Your task to perform on an android device: check the backup settings in the google photos Image 0: 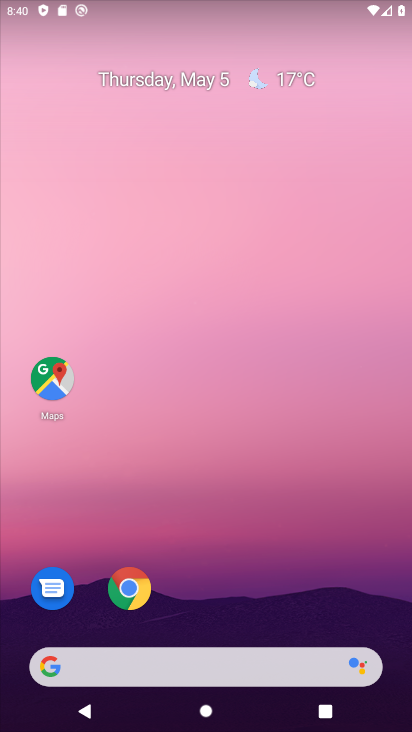
Step 0: drag from (225, 594) to (225, 240)
Your task to perform on an android device: check the backup settings in the google photos Image 1: 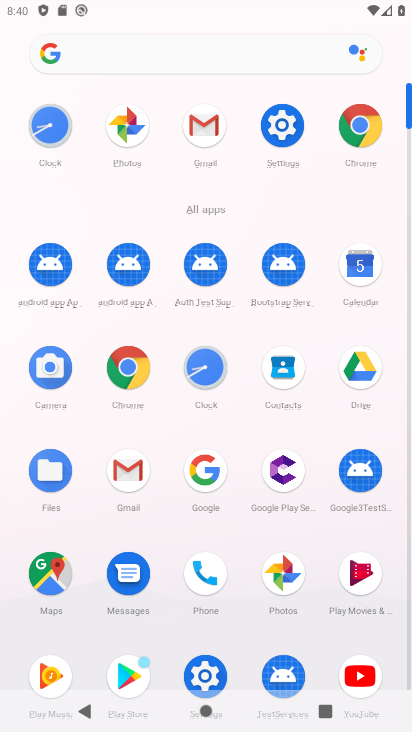
Step 1: click (267, 571)
Your task to perform on an android device: check the backup settings in the google photos Image 2: 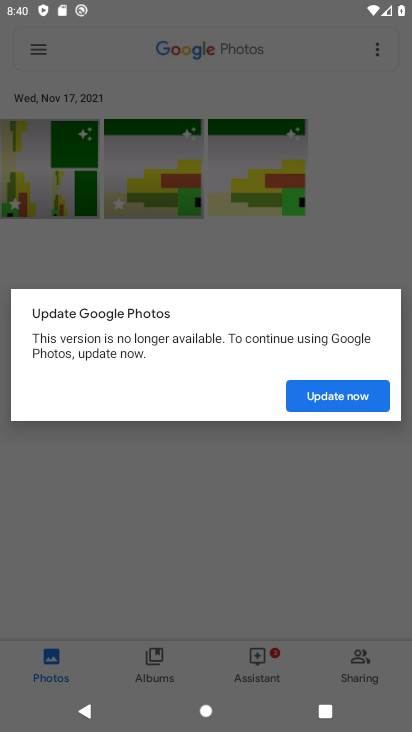
Step 2: click (353, 387)
Your task to perform on an android device: check the backup settings in the google photos Image 3: 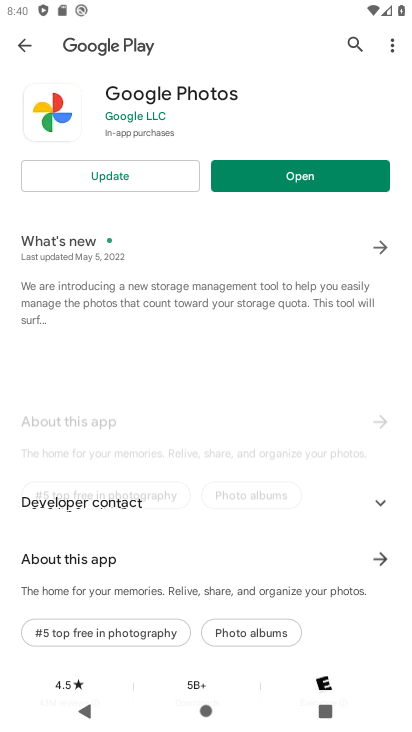
Step 3: press back button
Your task to perform on an android device: check the backup settings in the google photos Image 4: 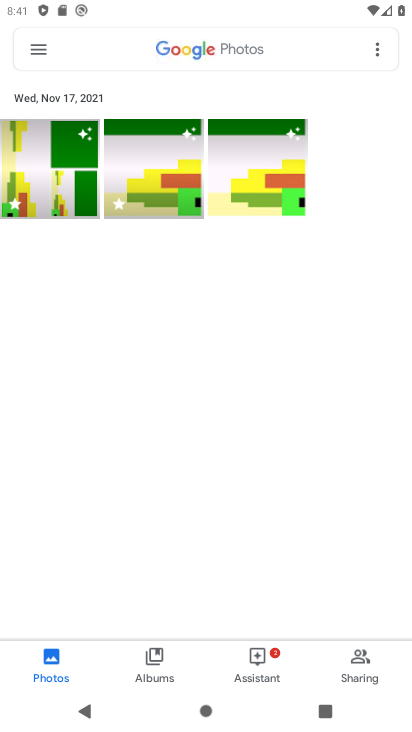
Step 4: click (33, 52)
Your task to perform on an android device: check the backup settings in the google photos Image 5: 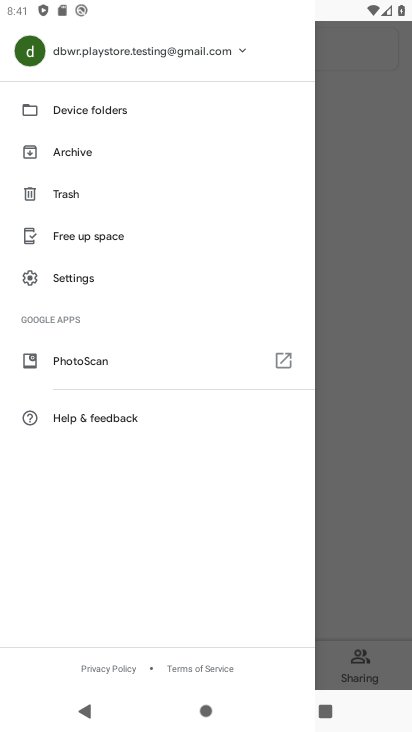
Step 5: click (82, 274)
Your task to perform on an android device: check the backup settings in the google photos Image 6: 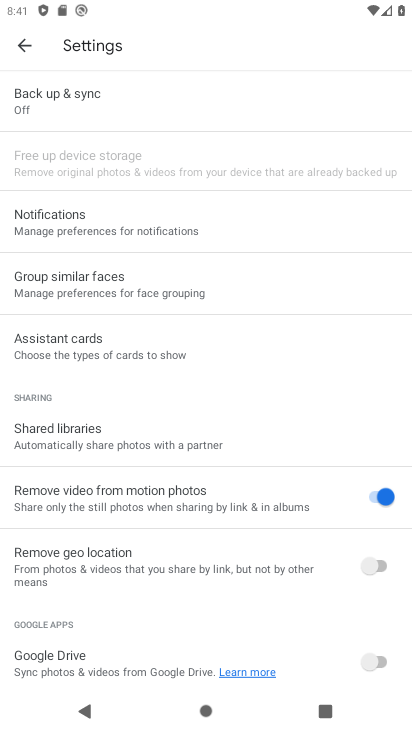
Step 6: click (77, 105)
Your task to perform on an android device: check the backup settings in the google photos Image 7: 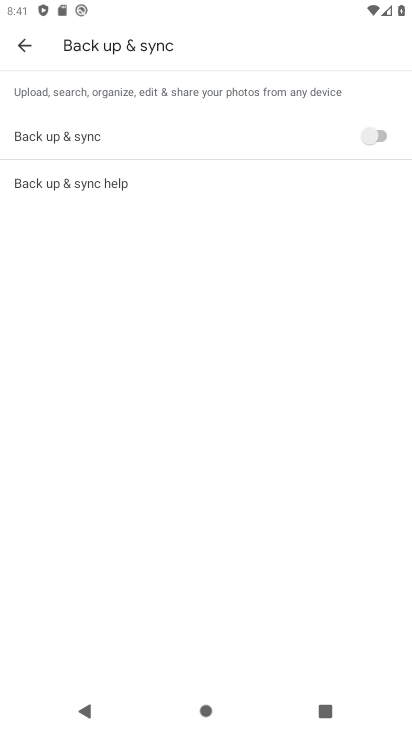
Step 7: click (78, 145)
Your task to perform on an android device: check the backup settings in the google photos Image 8: 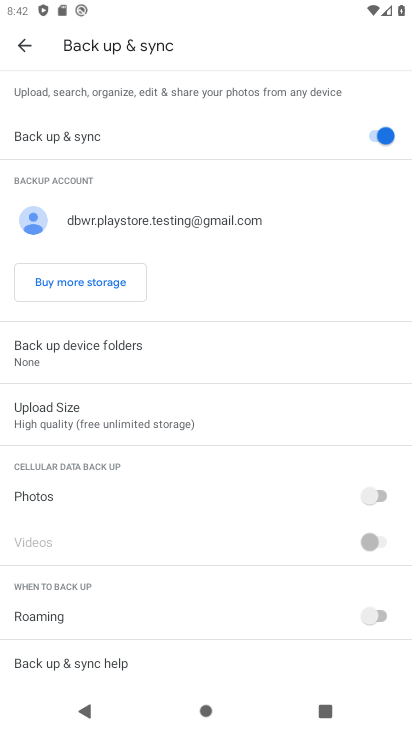
Step 8: task complete